Your task to perform on an android device: Find coffee shops on Maps Image 0: 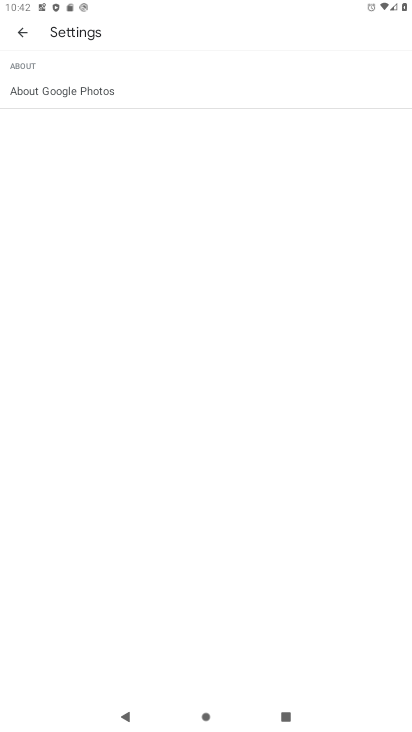
Step 0: press home button
Your task to perform on an android device: Find coffee shops on Maps Image 1: 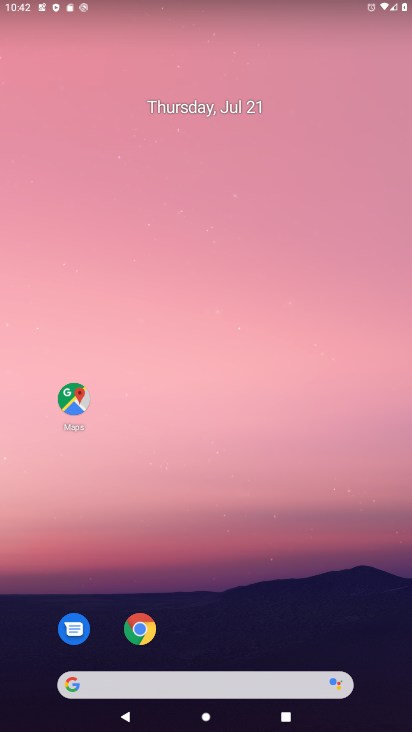
Step 1: click (78, 405)
Your task to perform on an android device: Find coffee shops on Maps Image 2: 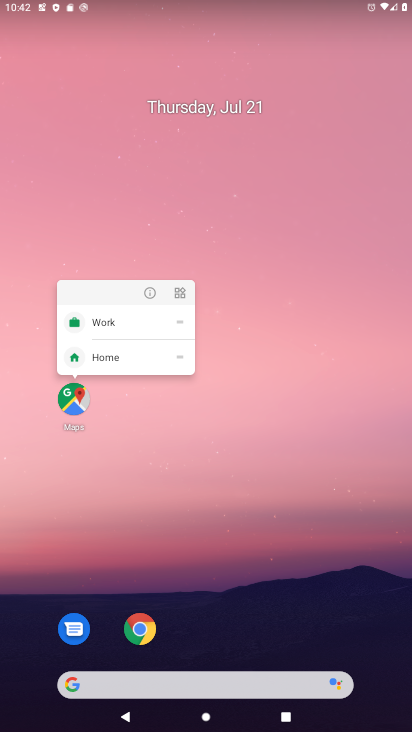
Step 2: click (70, 395)
Your task to perform on an android device: Find coffee shops on Maps Image 3: 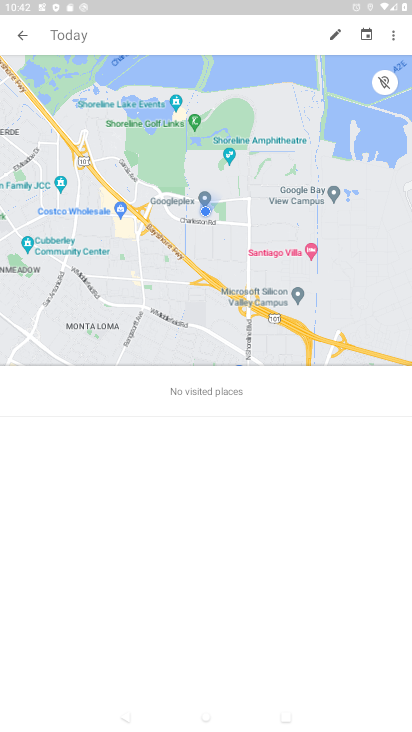
Step 3: click (21, 36)
Your task to perform on an android device: Find coffee shops on Maps Image 4: 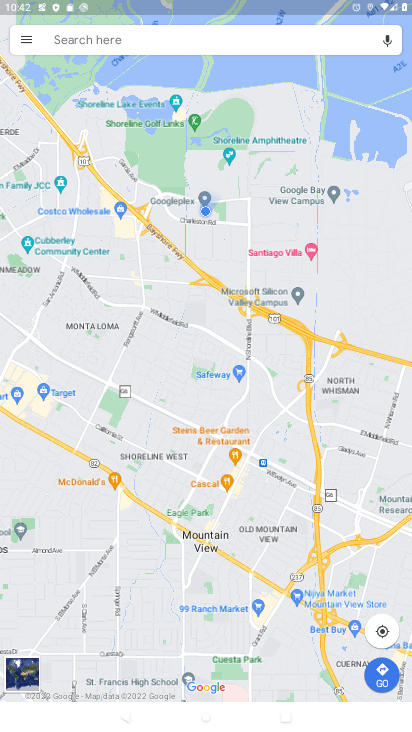
Step 4: click (92, 31)
Your task to perform on an android device: Find coffee shops on Maps Image 5: 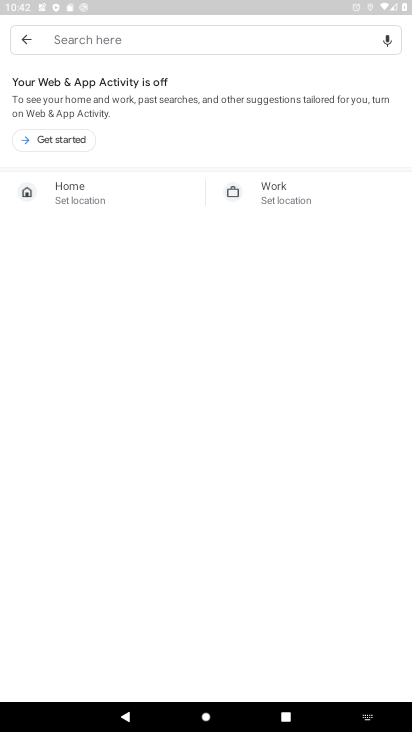
Step 5: type " coffee shops"
Your task to perform on an android device: Find coffee shops on Maps Image 6: 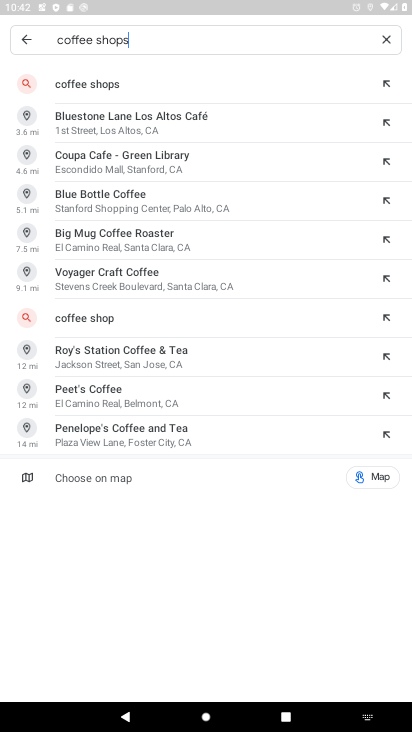
Step 6: click (72, 82)
Your task to perform on an android device: Find coffee shops on Maps Image 7: 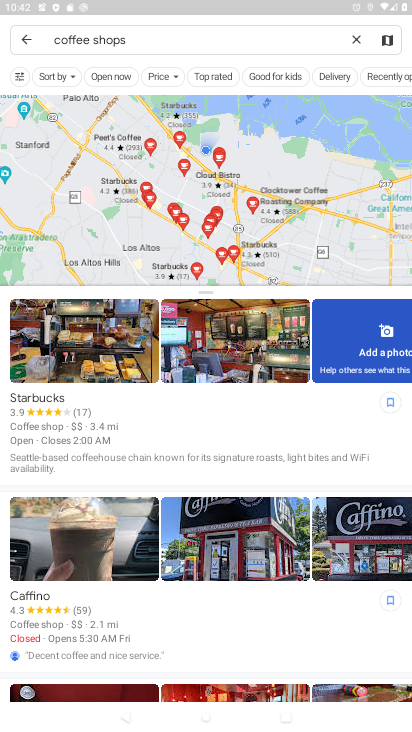
Step 7: task complete